Your task to perform on an android device: create a new album in the google photos Image 0: 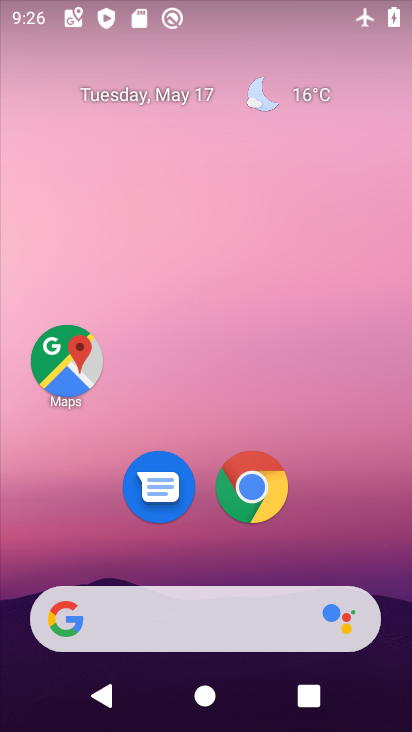
Step 0: drag from (198, 555) to (276, 178)
Your task to perform on an android device: create a new album in the google photos Image 1: 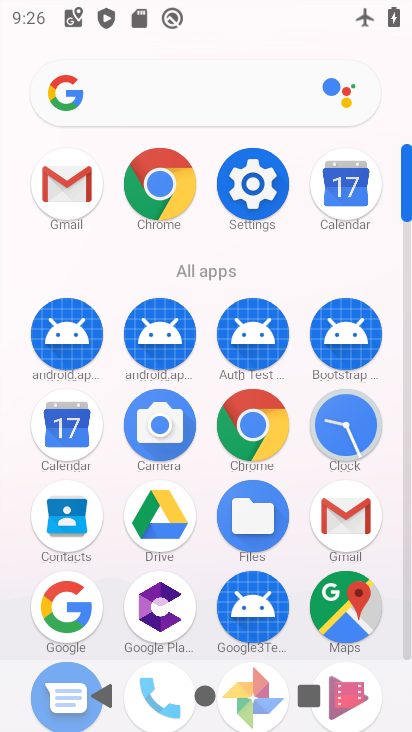
Step 1: drag from (195, 580) to (218, 232)
Your task to perform on an android device: create a new album in the google photos Image 2: 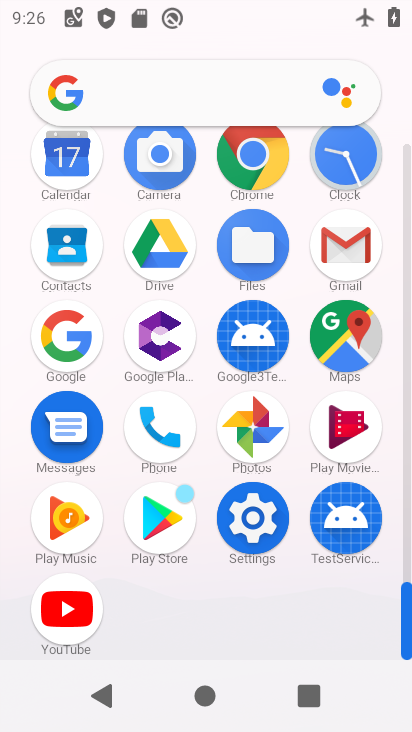
Step 2: click (254, 430)
Your task to perform on an android device: create a new album in the google photos Image 3: 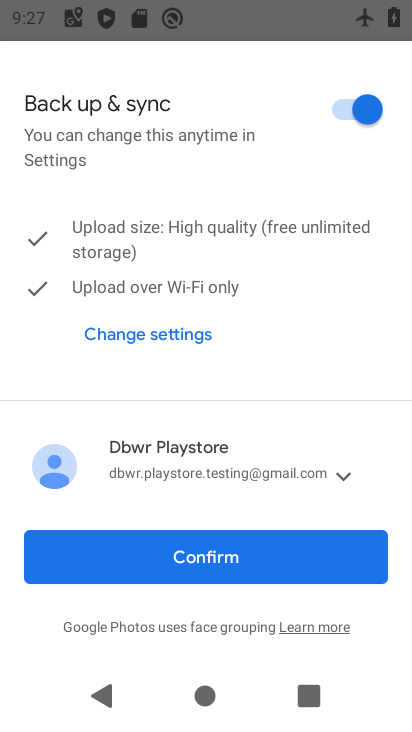
Step 3: click (226, 561)
Your task to perform on an android device: create a new album in the google photos Image 4: 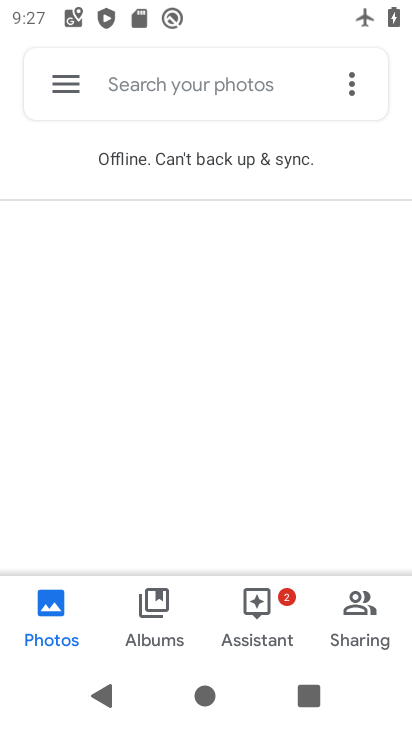
Step 4: click (152, 599)
Your task to perform on an android device: create a new album in the google photos Image 5: 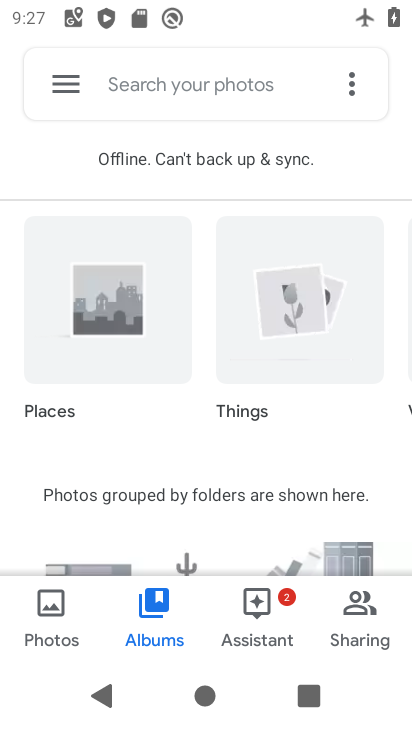
Step 5: task complete